Your task to perform on an android device: Open battery settings Image 0: 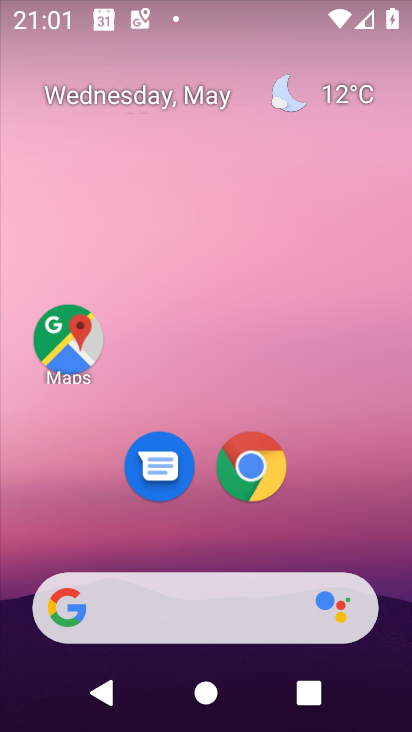
Step 0: drag from (204, 537) to (236, 34)
Your task to perform on an android device: Open battery settings Image 1: 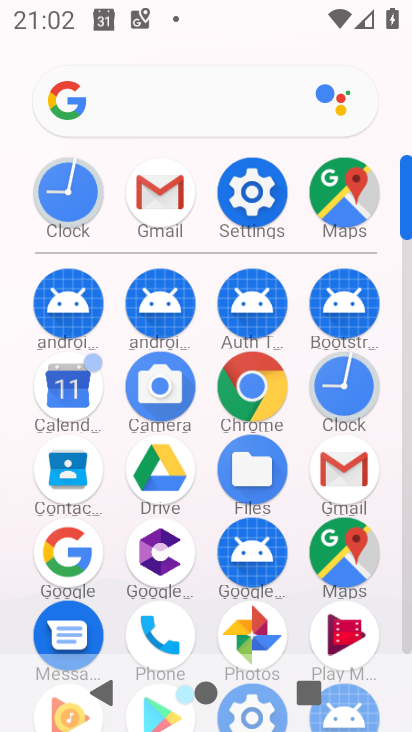
Step 1: click (253, 190)
Your task to perform on an android device: Open battery settings Image 2: 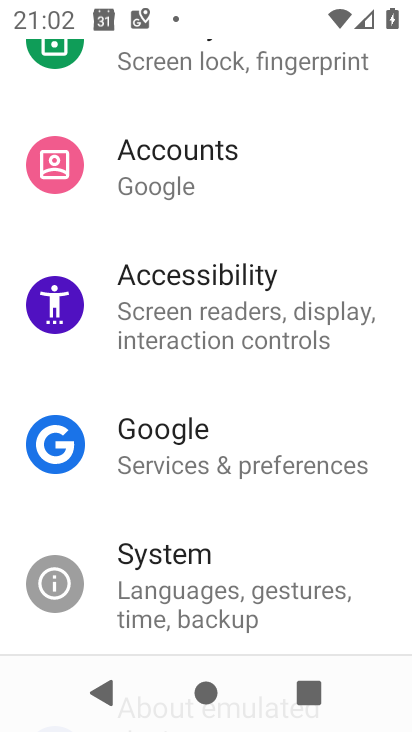
Step 2: drag from (180, 137) to (221, 731)
Your task to perform on an android device: Open battery settings Image 3: 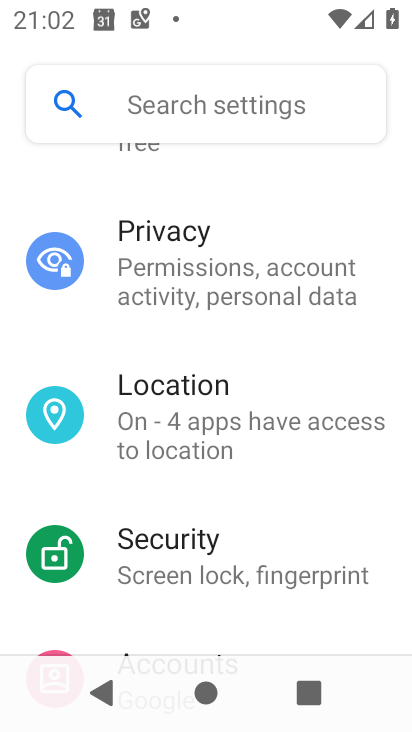
Step 3: drag from (206, 245) to (214, 677)
Your task to perform on an android device: Open battery settings Image 4: 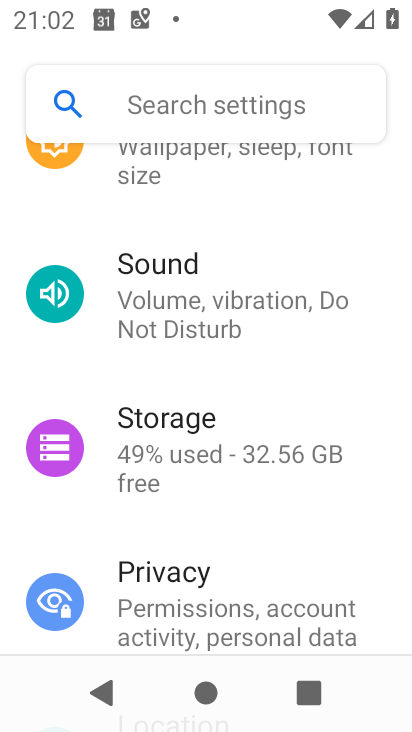
Step 4: drag from (189, 199) to (184, 636)
Your task to perform on an android device: Open battery settings Image 5: 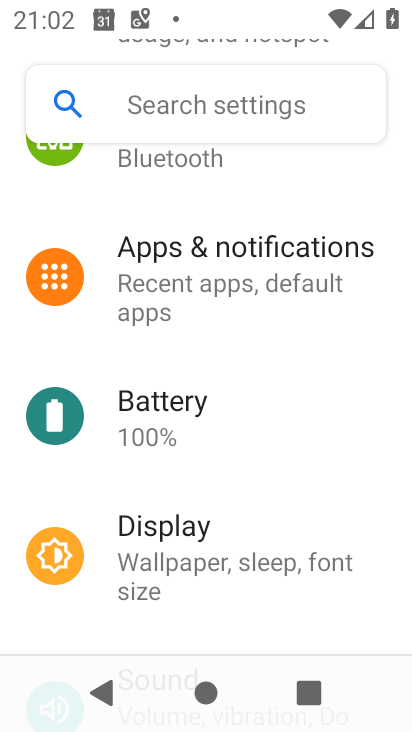
Step 5: click (198, 420)
Your task to perform on an android device: Open battery settings Image 6: 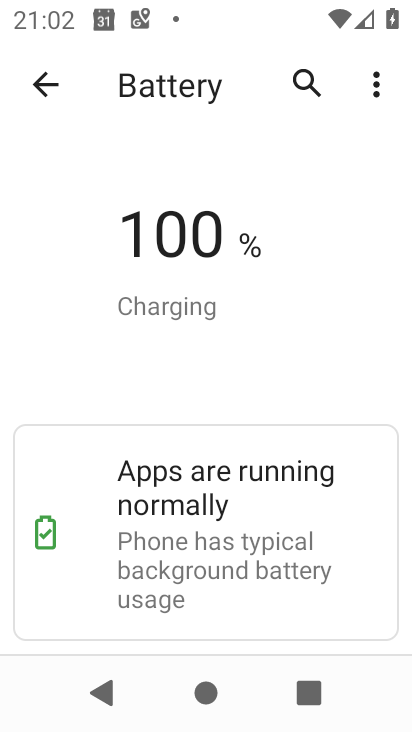
Step 6: task complete